Your task to perform on an android device: Open wifi settings Image 0: 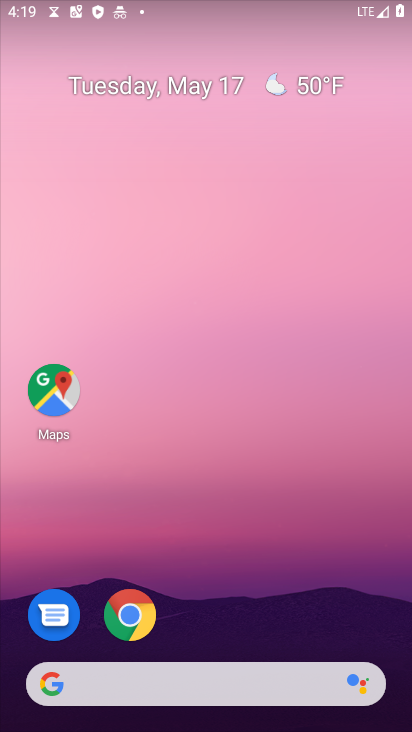
Step 0: drag from (251, 429) to (214, 174)
Your task to perform on an android device: Open wifi settings Image 1: 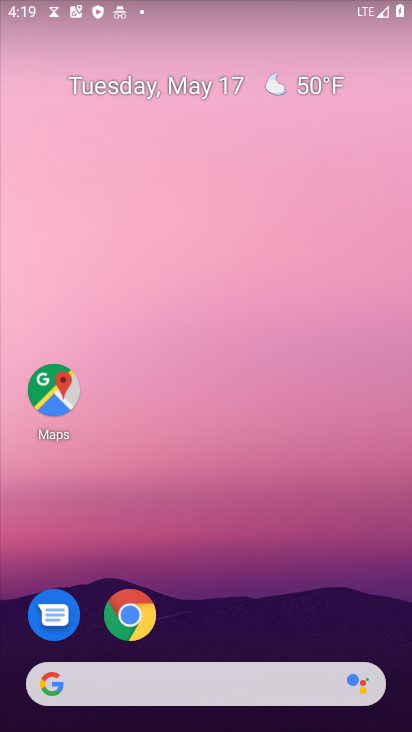
Step 1: drag from (242, 461) to (230, 34)
Your task to perform on an android device: Open wifi settings Image 2: 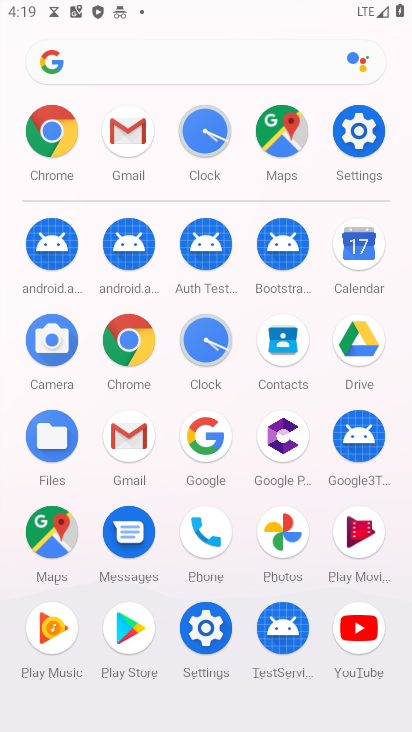
Step 2: click (350, 125)
Your task to perform on an android device: Open wifi settings Image 3: 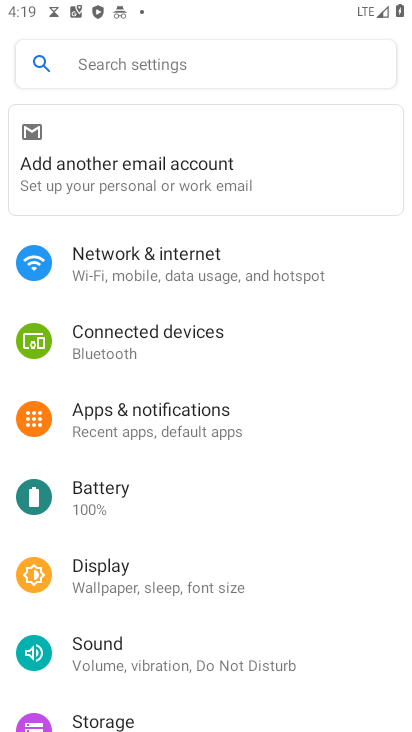
Step 3: click (164, 270)
Your task to perform on an android device: Open wifi settings Image 4: 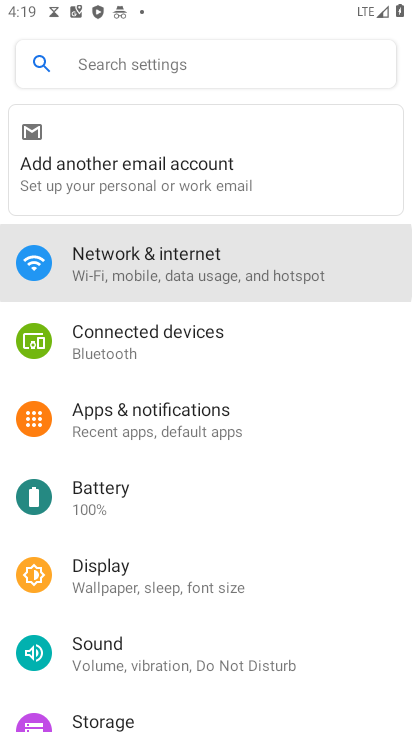
Step 4: click (164, 270)
Your task to perform on an android device: Open wifi settings Image 5: 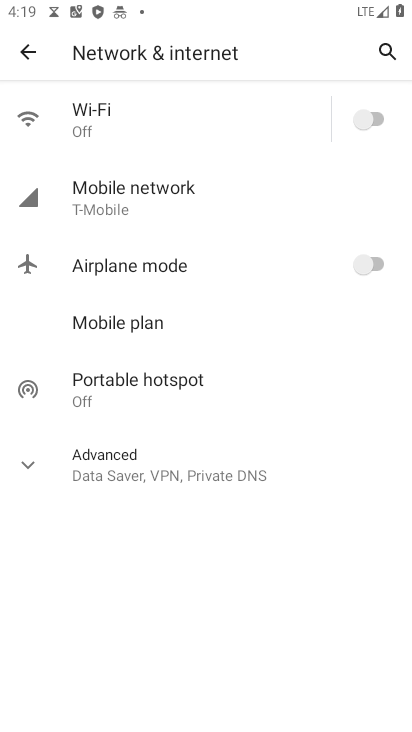
Step 5: click (359, 120)
Your task to perform on an android device: Open wifi settings Image 6: 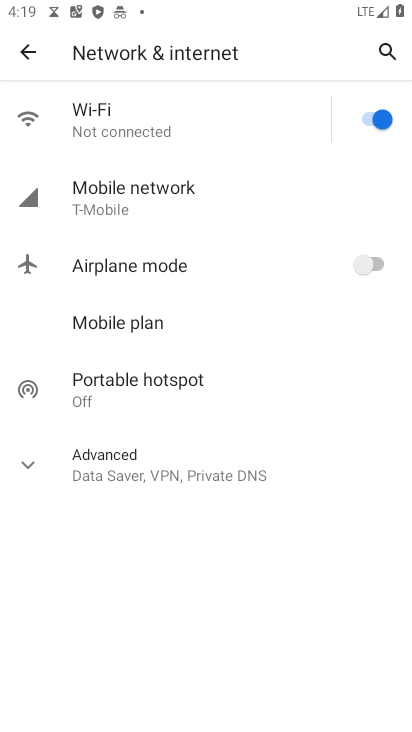
Step 6: task complete